Your task to perform on an android device: change notifications settings Image 0: 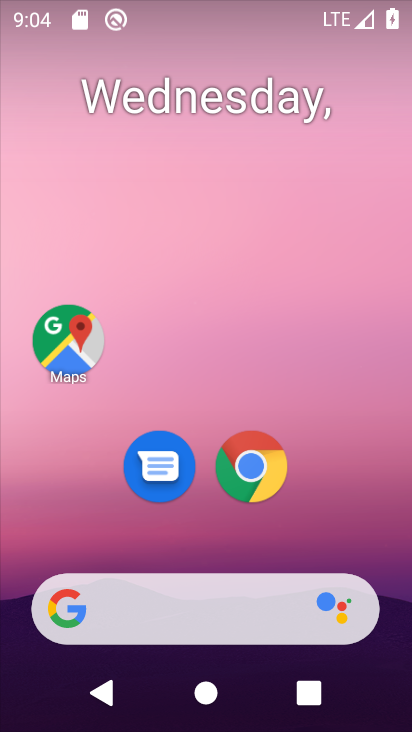
Step 0: drag from (240, 705) to (237, 269)
Your task to perform on an android device: change notifications settings Image 1: 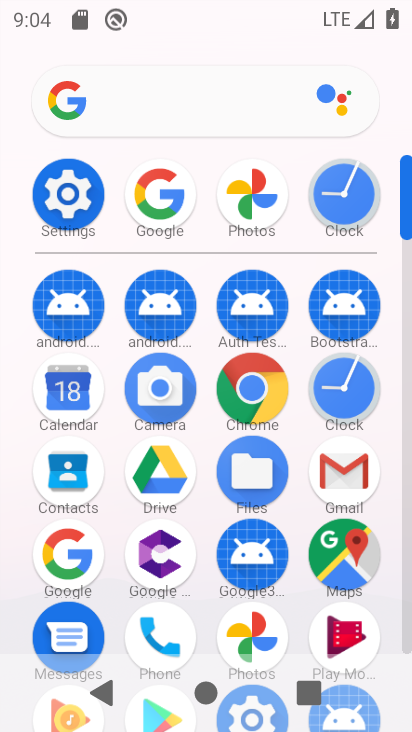
Step 1: click (70, 187)
Your task to perform on an android device: change notifications settings Image 2: 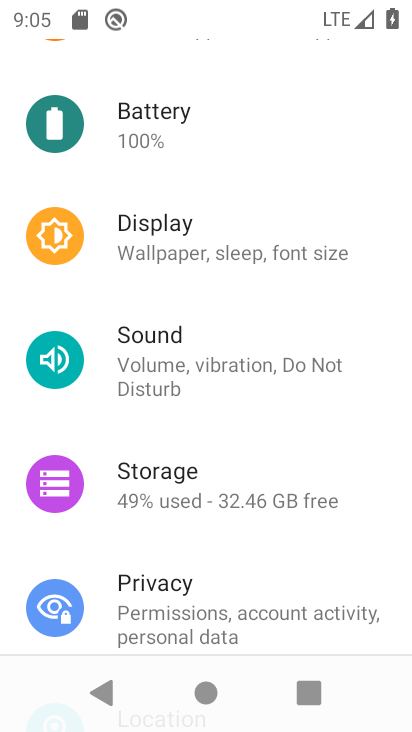
Step 2: drag from (166, 190) to (209, 556)
Your task to perform on an android device: change notifications settings Image 3: 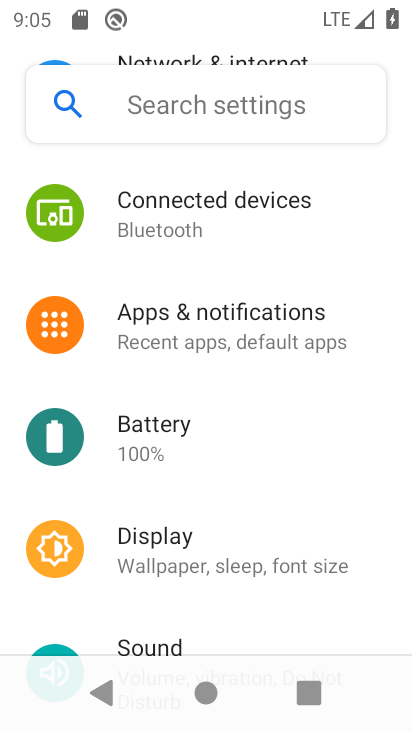
Step 3: click (231, 323)
Your task to perform on an android device: change notifications settings Image 4: 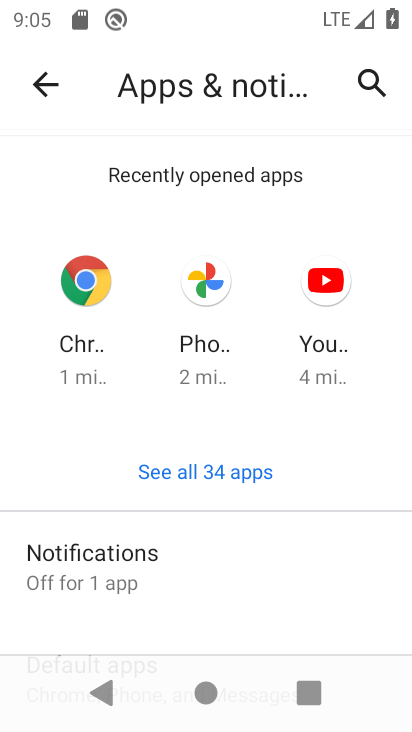
Step 4: drag from (180, 608) to (177, 264)
Your task to perform on an android device: change notifications settings Image 5: 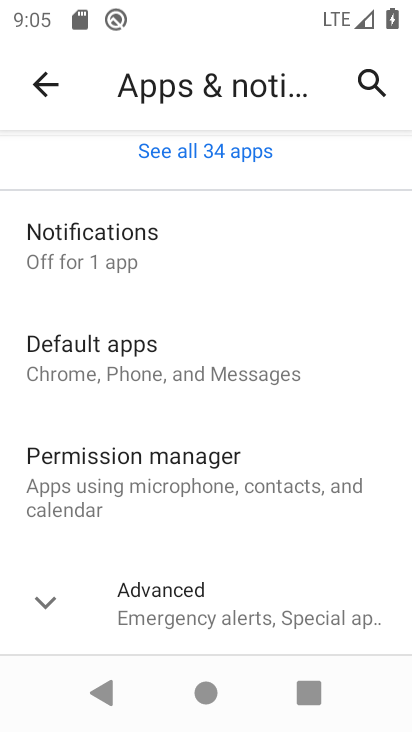
Step 5: click (89, 254)
Your task to perform on an android device: change notifications settings Image 6: 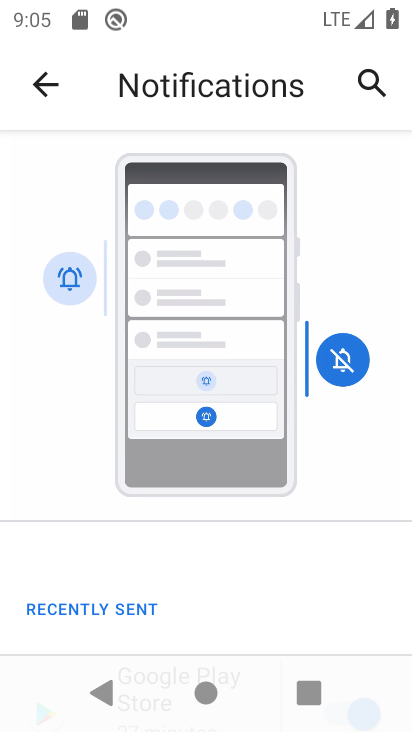
Step 6: drag from (211, 619) to (210, 248)
Your task to perform on an android device: change notifications settings Image 7: 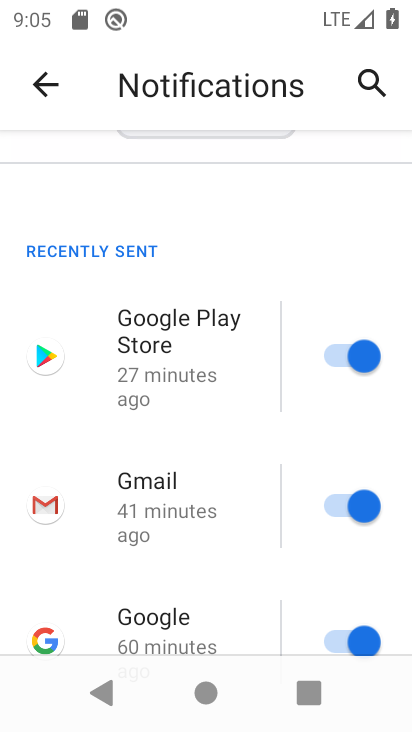
Step 7: drag from (199, 631) to (199, 191)
Your task to perform on an android device: change notifications settings Image 8: 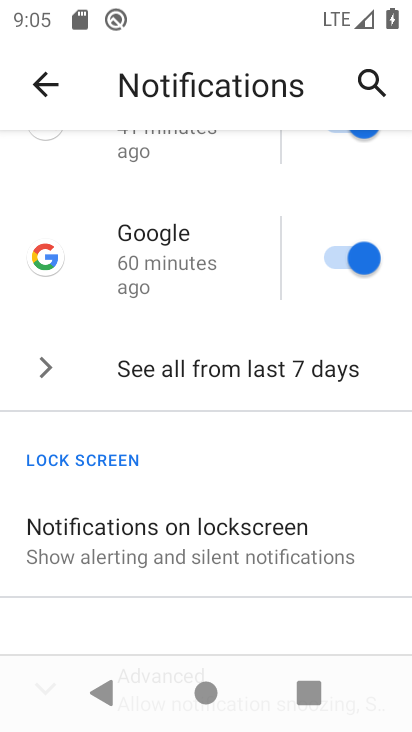
Step 8: drag from (198, 585) to (196, 302)
Your task to perform on an android device: change notifications settings Image 9: 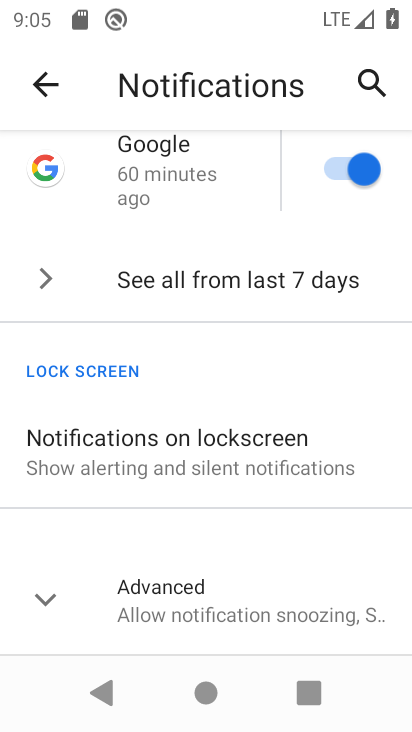
Step 9: click (176, 598)
Your task to perform on an android device: change notifications settings Image 10: 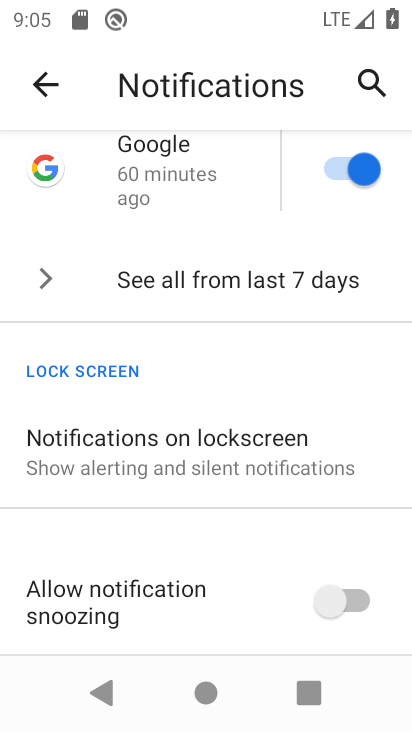
Step 10: click (366, 600)
Your task to perform on an android device: change notifications settings Image 11: 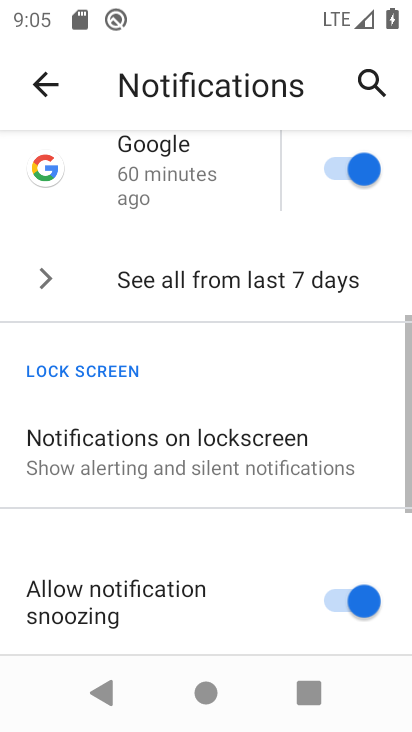
Step 11: task complete